Your task to perform on an android device: Search for "usb-c to usb-a" on ebay, select the first entry, add it to the cart, then select checkout. Image 0: 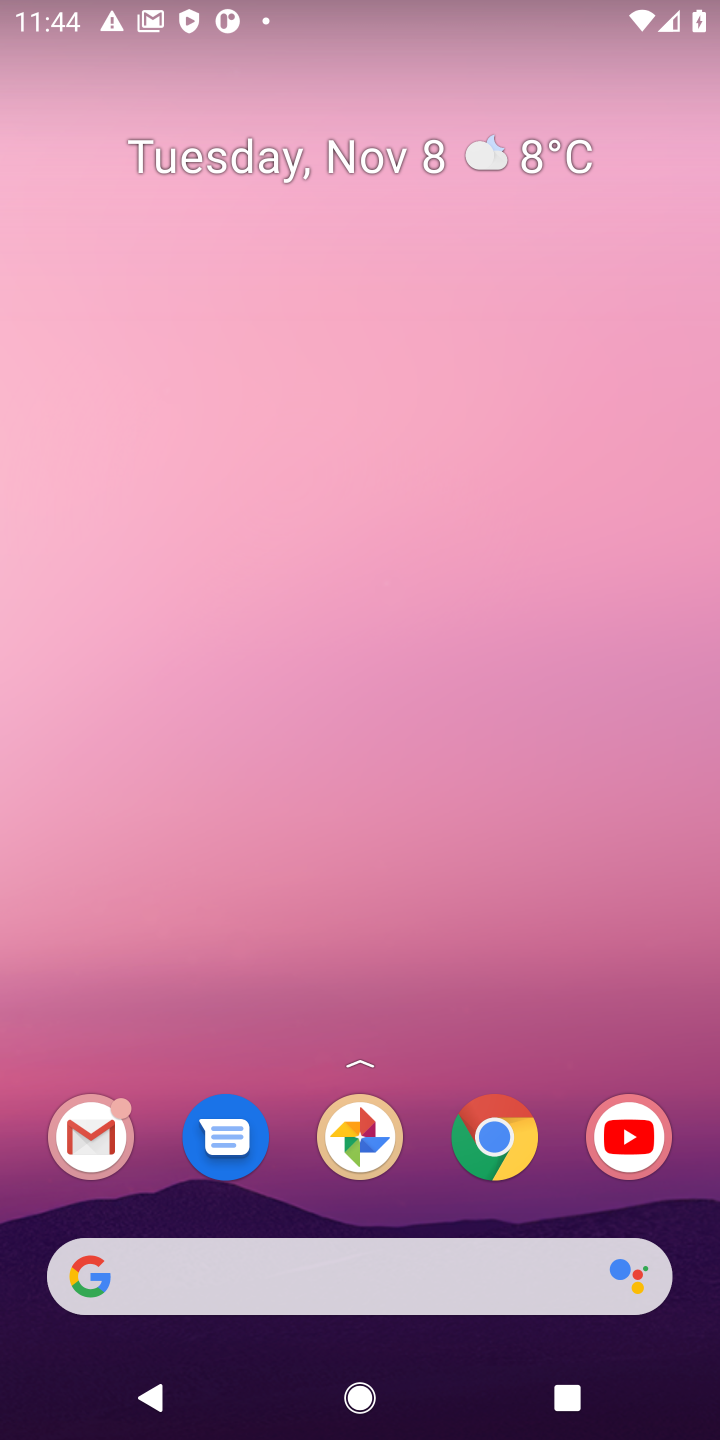
Step 0: click (498, 1136)
Your task to perform on an android device: Search for "usb-c to usb-a" on ebay, select the first entry, add it to the cart, then select checkout. Image 1: 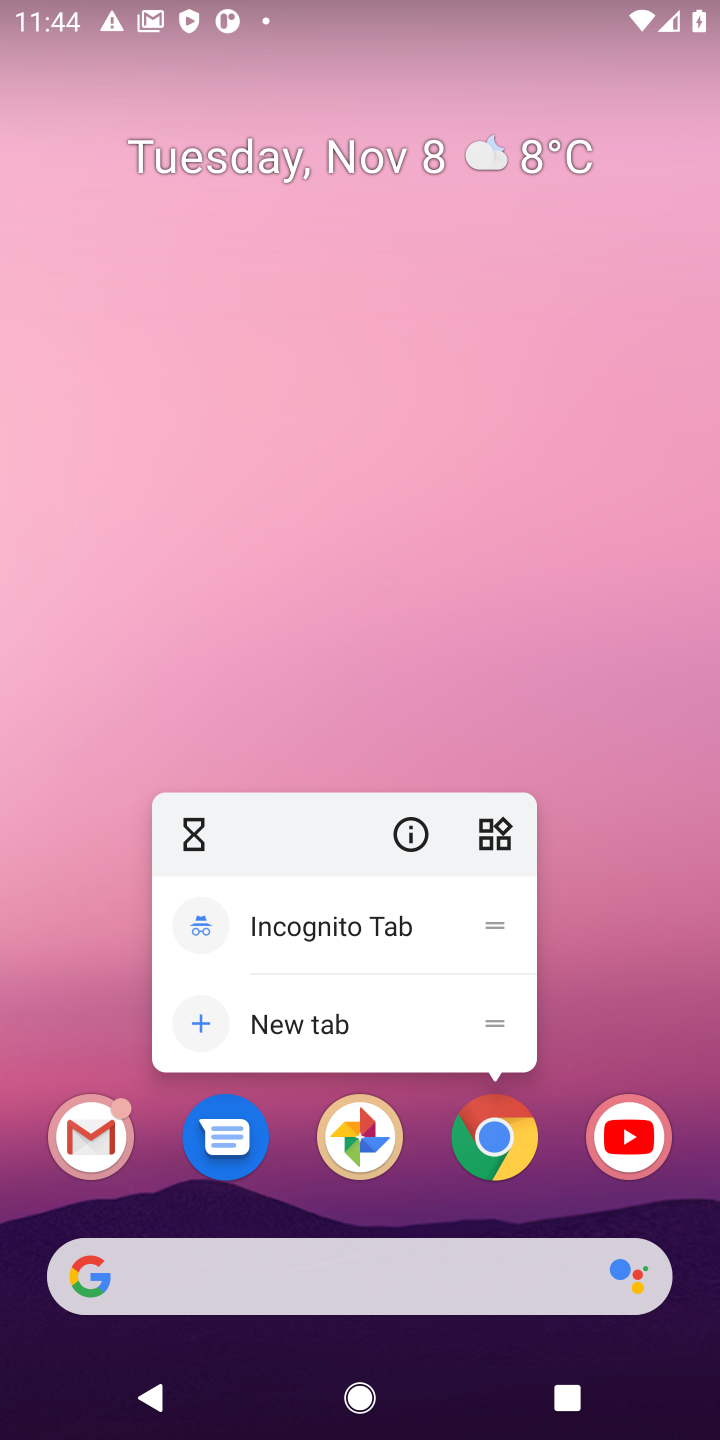
Step 1: click (487, 1146)
Your task to perform on an android device: Search for "usb-c to usb-a" on ebay, select the first entry, add it to the cart, then select checkout. Image 2: 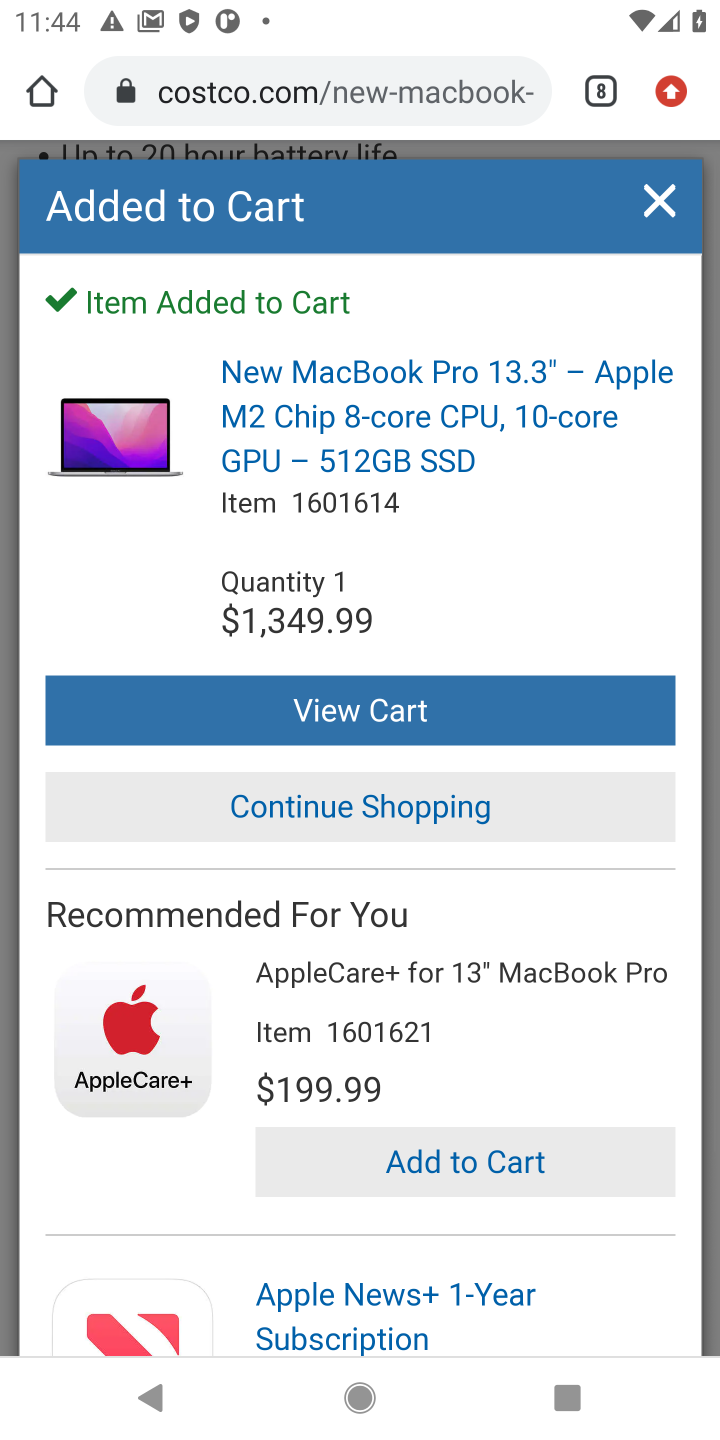
Step 2: click (599, 92)
Your task to perform on an android device: Search for "usb-c to usb-a" on ebay, select the first entry, add it to the cart, then select checkout. Image 3: 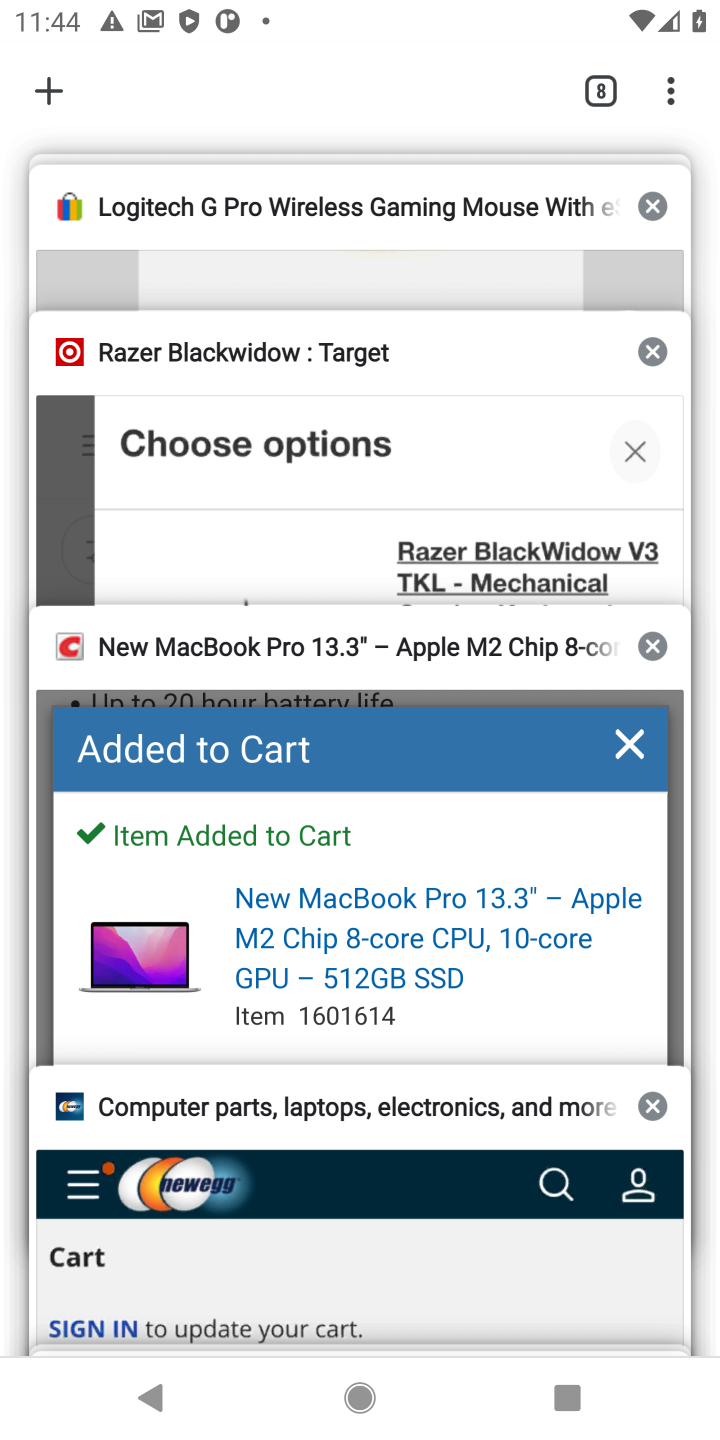
Step 3: click (475, 246)
Your task to perform on an android device: Search for "usb-c to usb-a" on ebay, select the first entry, add it to the cart, then select checkout. Image 4: 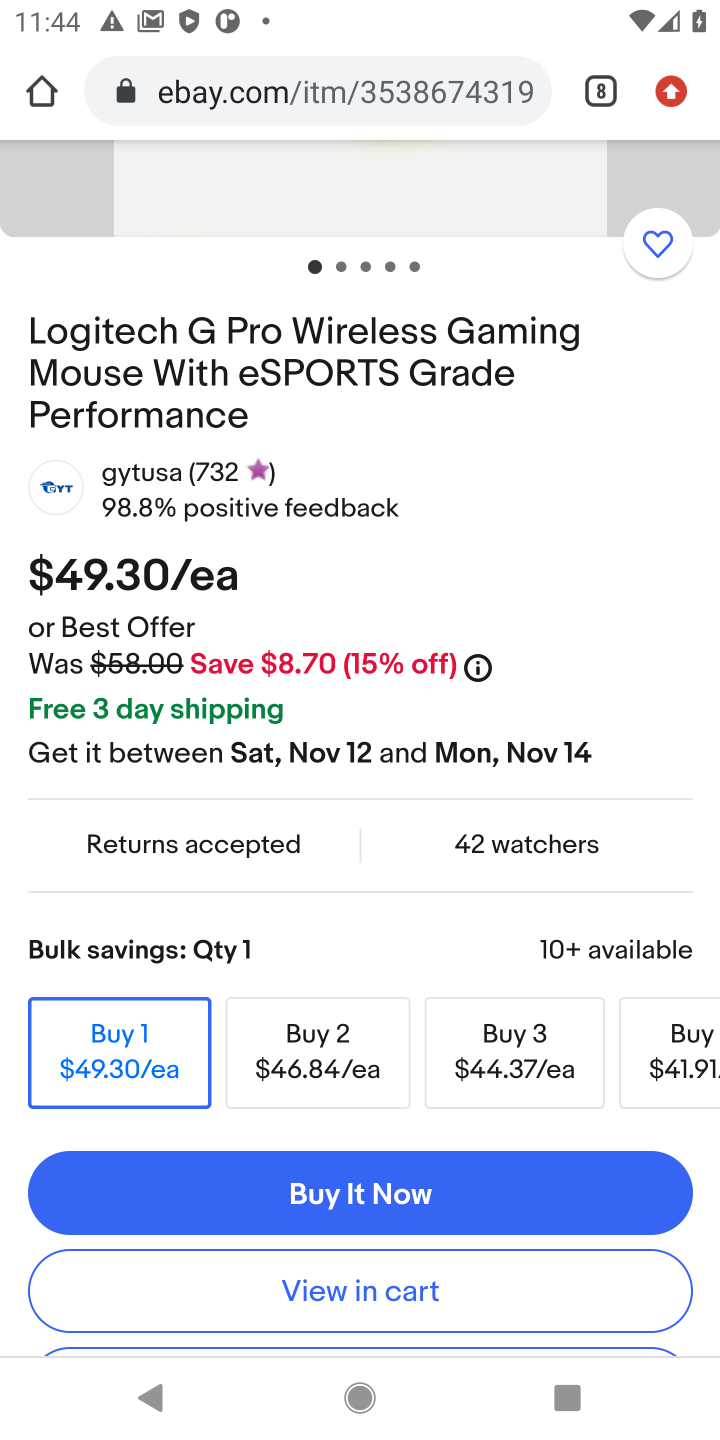
Step 4: drag from (447, 264) to (415, 1068)
Your task to perform on an android device: Search for "usb-c to usb-a" on ebay, select the first entry, add it to the cart, then select checkout. Image 5: 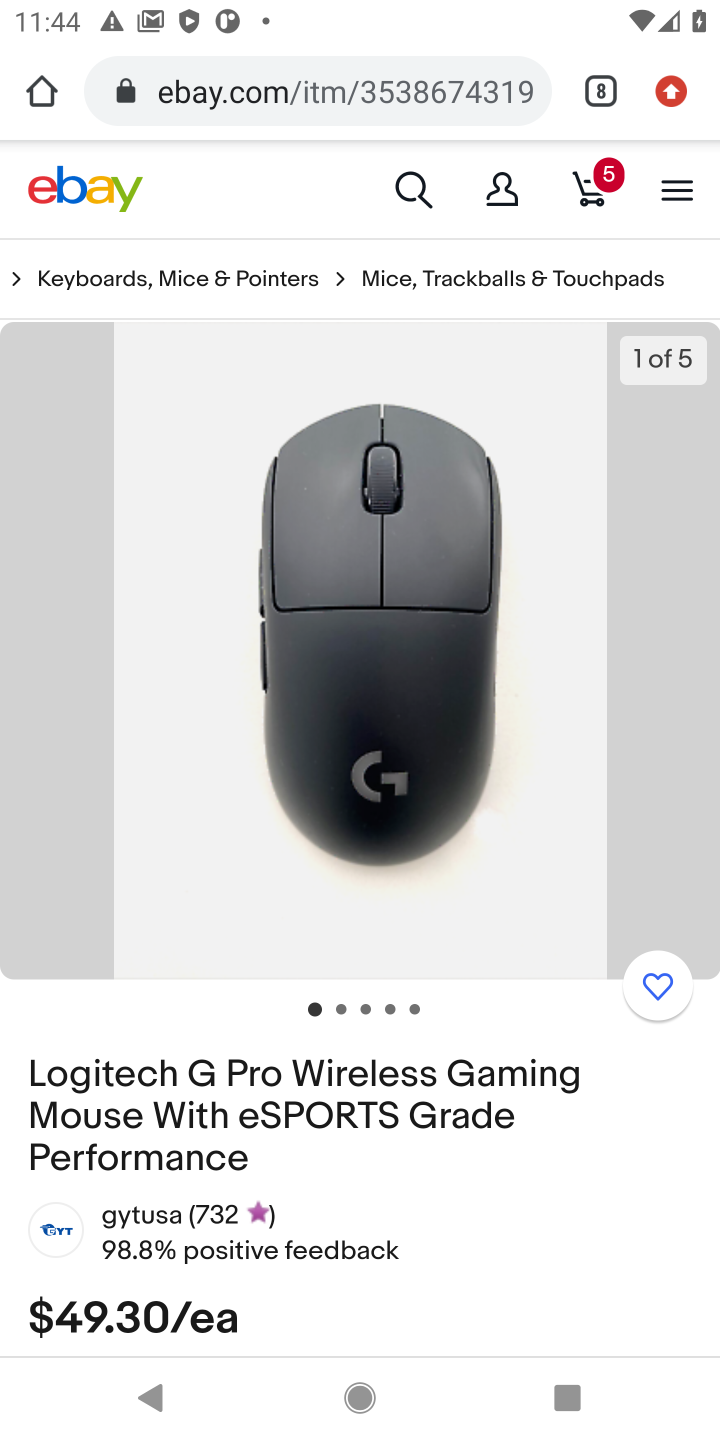
Step 5: click (409, 191)
Your task to perform on an android device: Search for "usb-c to usb-a" on ebay, select the first entry, add it to the cart, then select checkout. Image 6: 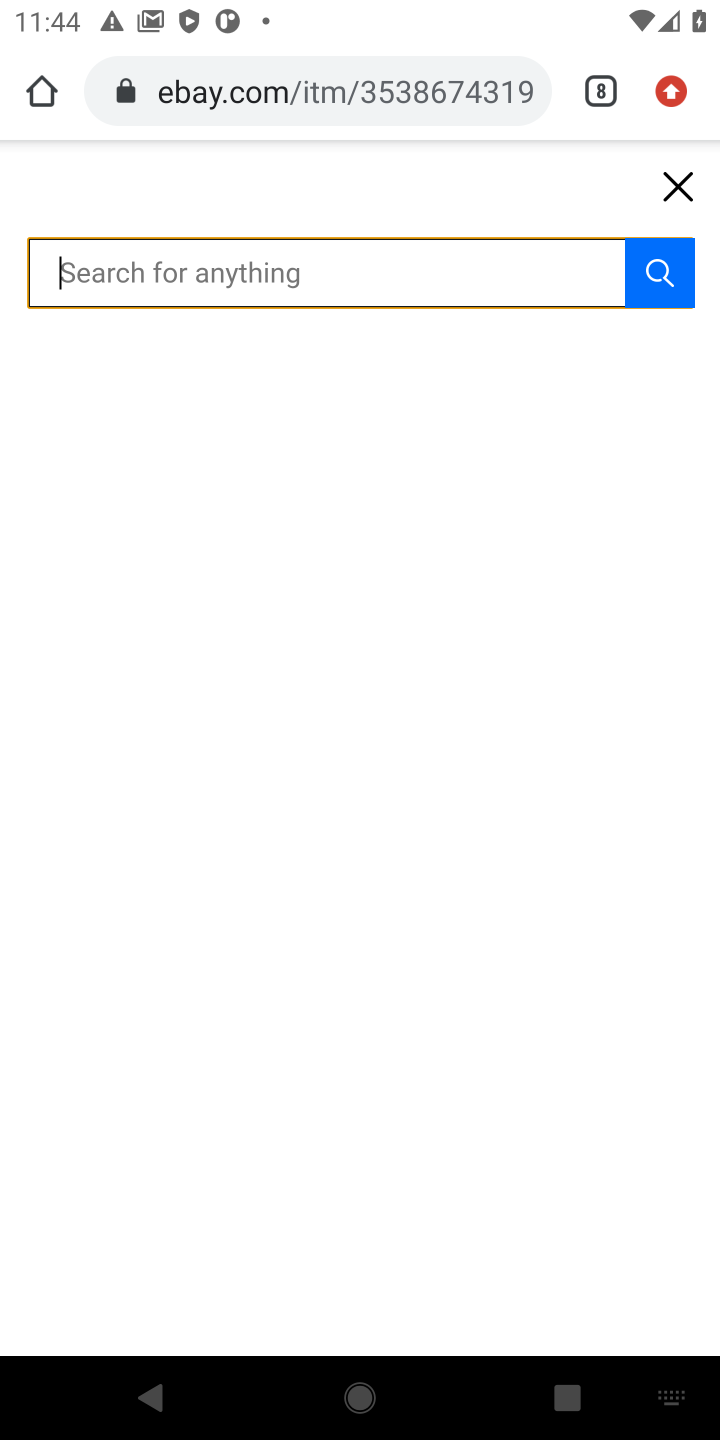
Step 6: type "usb-c to usb-a"
Your task to perform on an android device: Search for "usb-c to usb-a" on ebay, select the first entry, add it to the cart, then select checkout. Image 7: 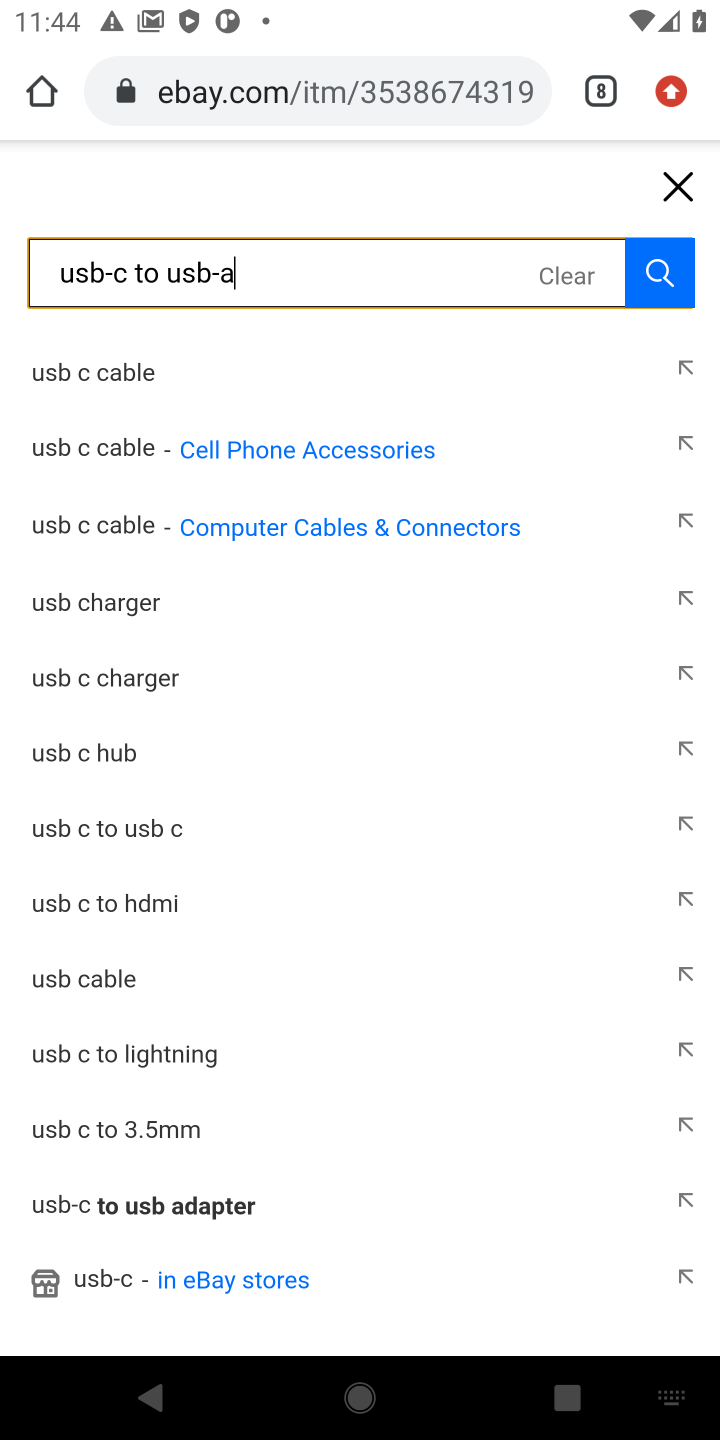
Step 7: click (648, 279)
Your task to perform on an android device: Search for "usb-c to usb-a" on ebay, select the first entry, add it to the cart, then select checkout. Image 8: 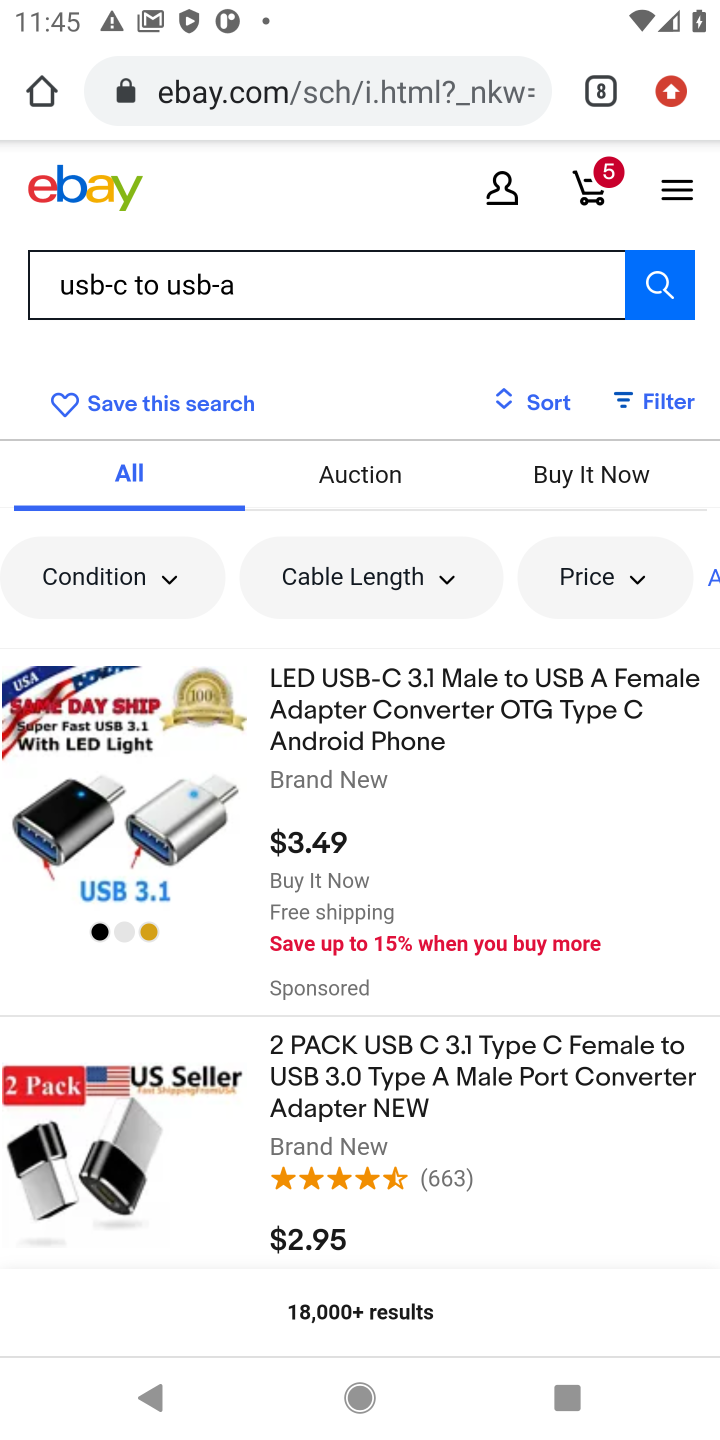
Step 8: click (494, 705)
Your task to perform on an android device: Search for "usb-c to usb-a" on ebay, select the first entry, add it to the cart, then select checkout. Image 9: 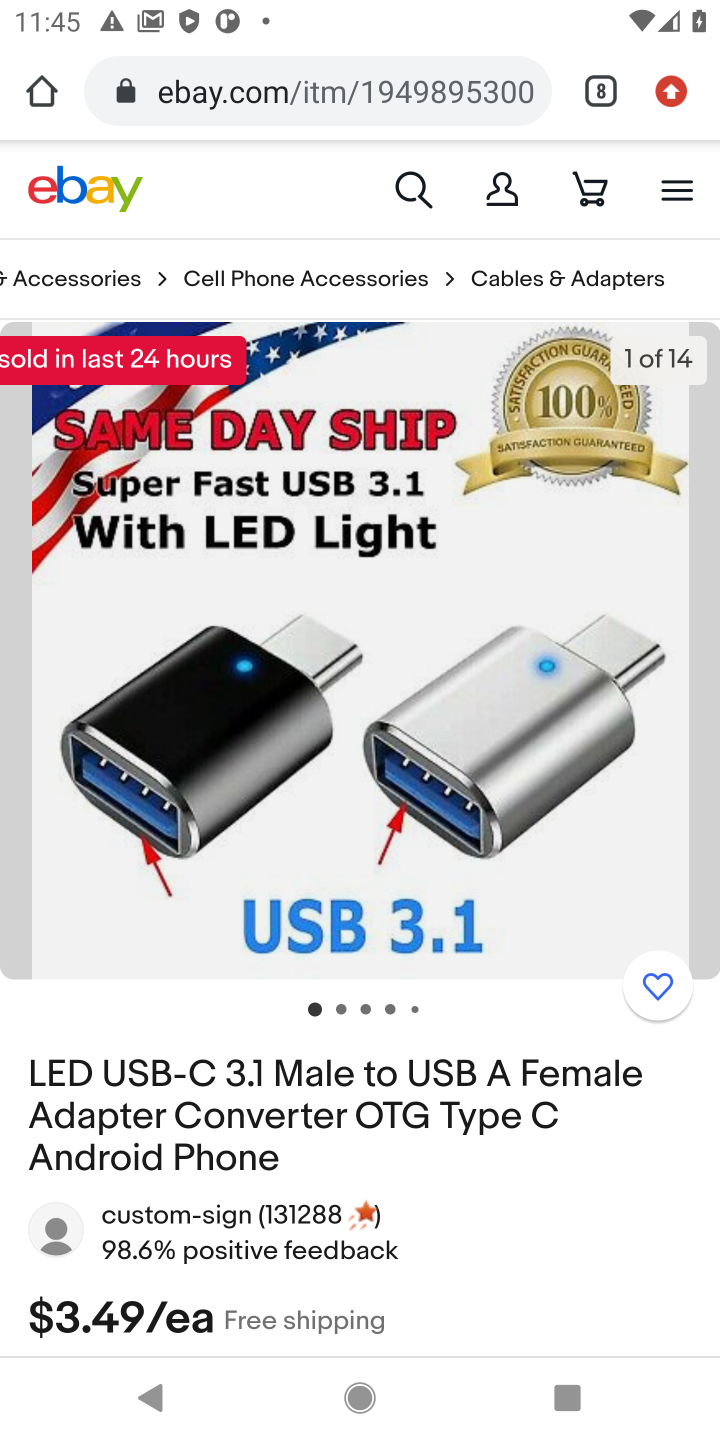
Step 9: drag from (518, 894) to (618, 570)
Your task to perform on an android device: Search for "usb-c to usb-a" on ebay, select the first entry, add it to the cart, then select checkout. Image 10: 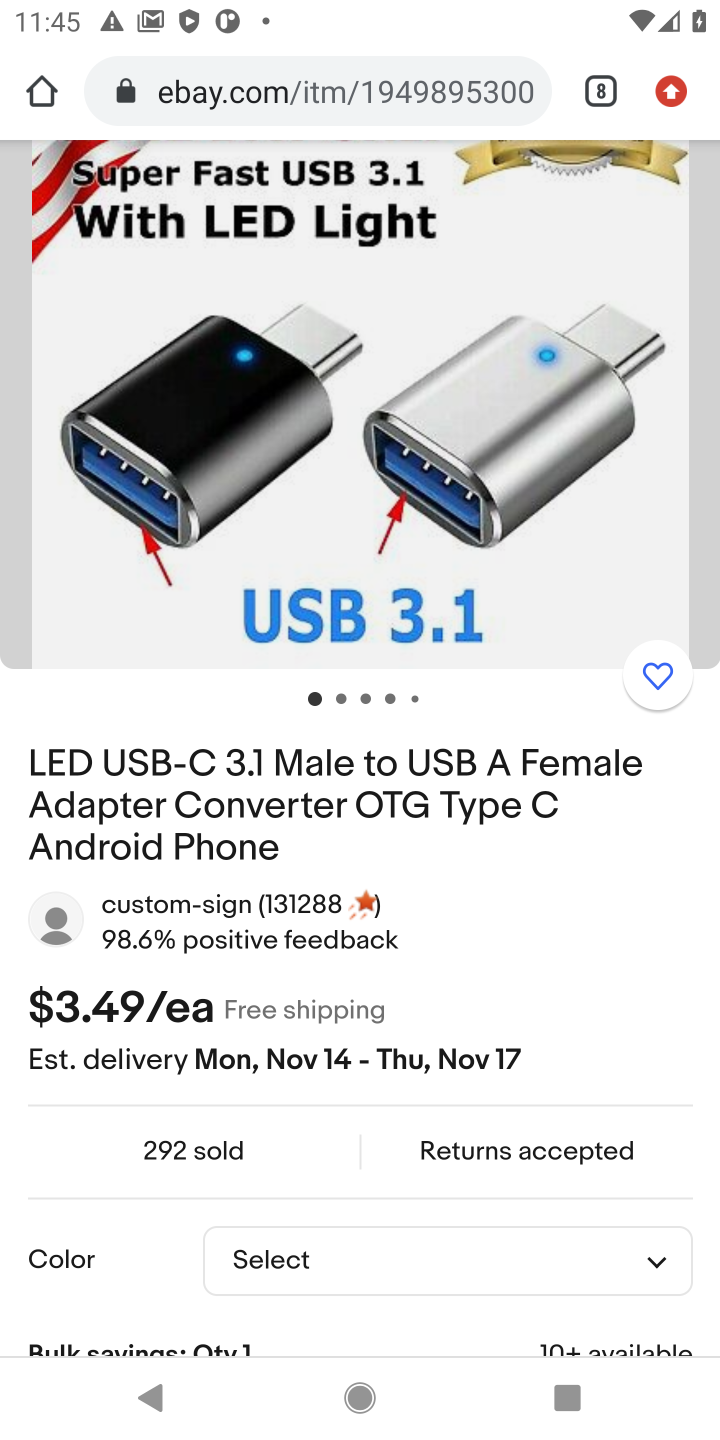
Step 10: drag from (558, 1161) to (644, 534)
Your task to perform on an android device: Search for "usb-c to usb-a" on ebay, select the first entry, add it to the cart, then select checkout. Image 11: 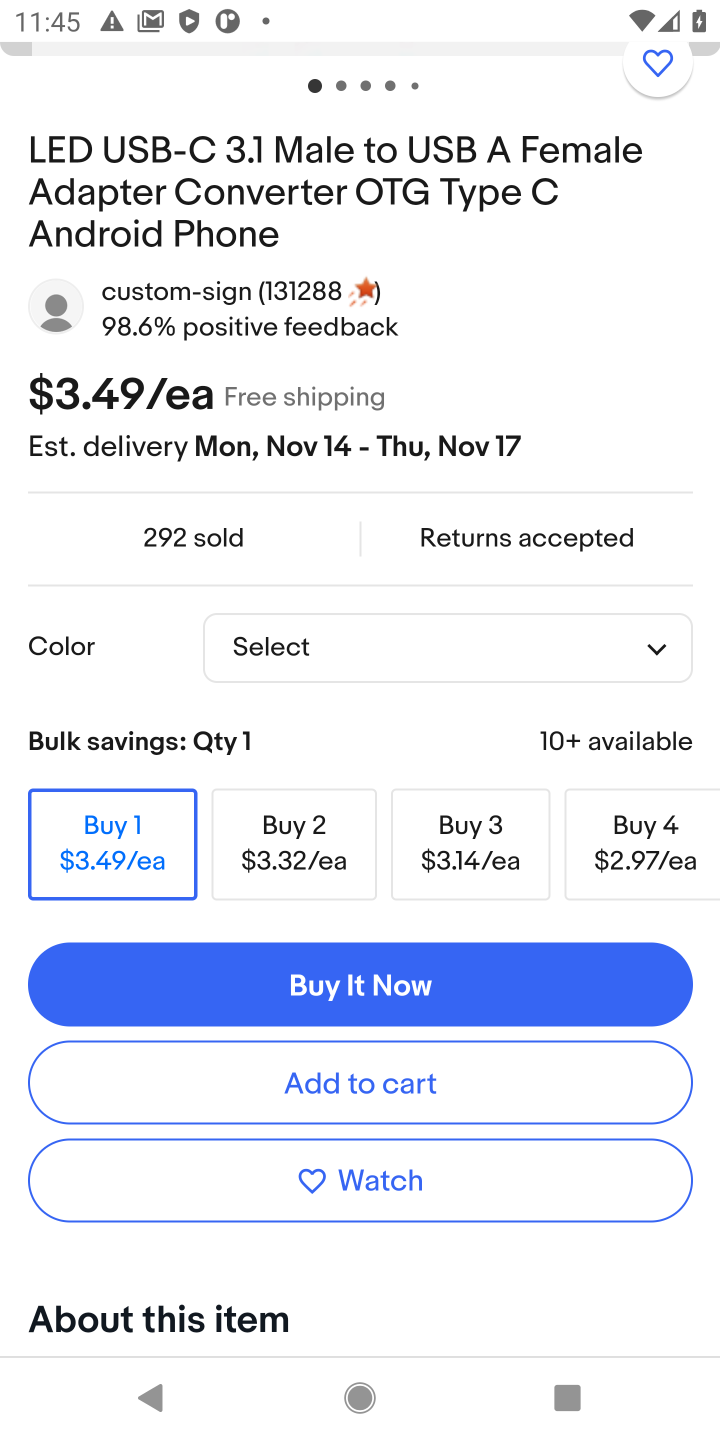
Step 11: click (650, 646)
Your task to perform on an android device: Search for "usb-c to usb-a" on ebay, select the first entry, add it to the cart, then select checkout. Image 12: 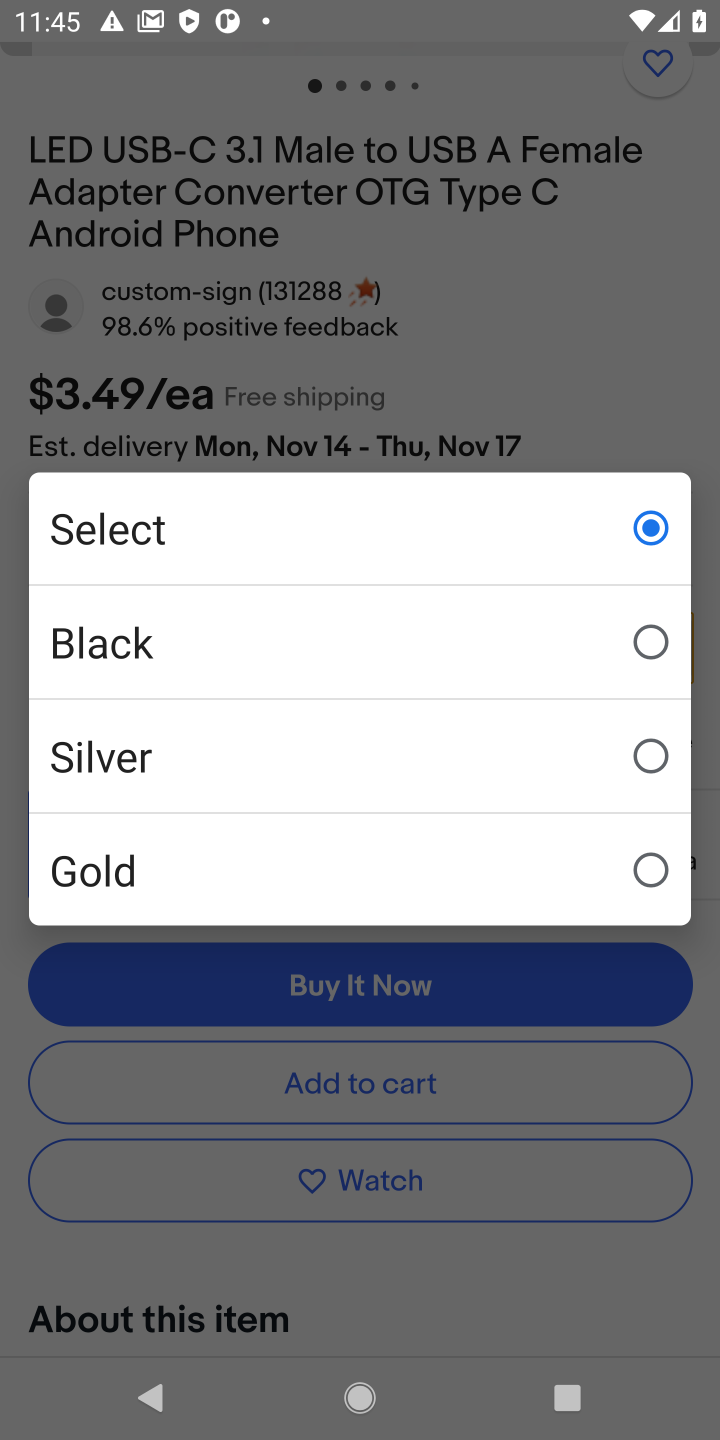
Step 12: click (651, 656)
Your task to perform on an android device: Search for "usb-c to usb-a" on ebay, select the first entry, add it to the cart, then select checkout. Image 13: 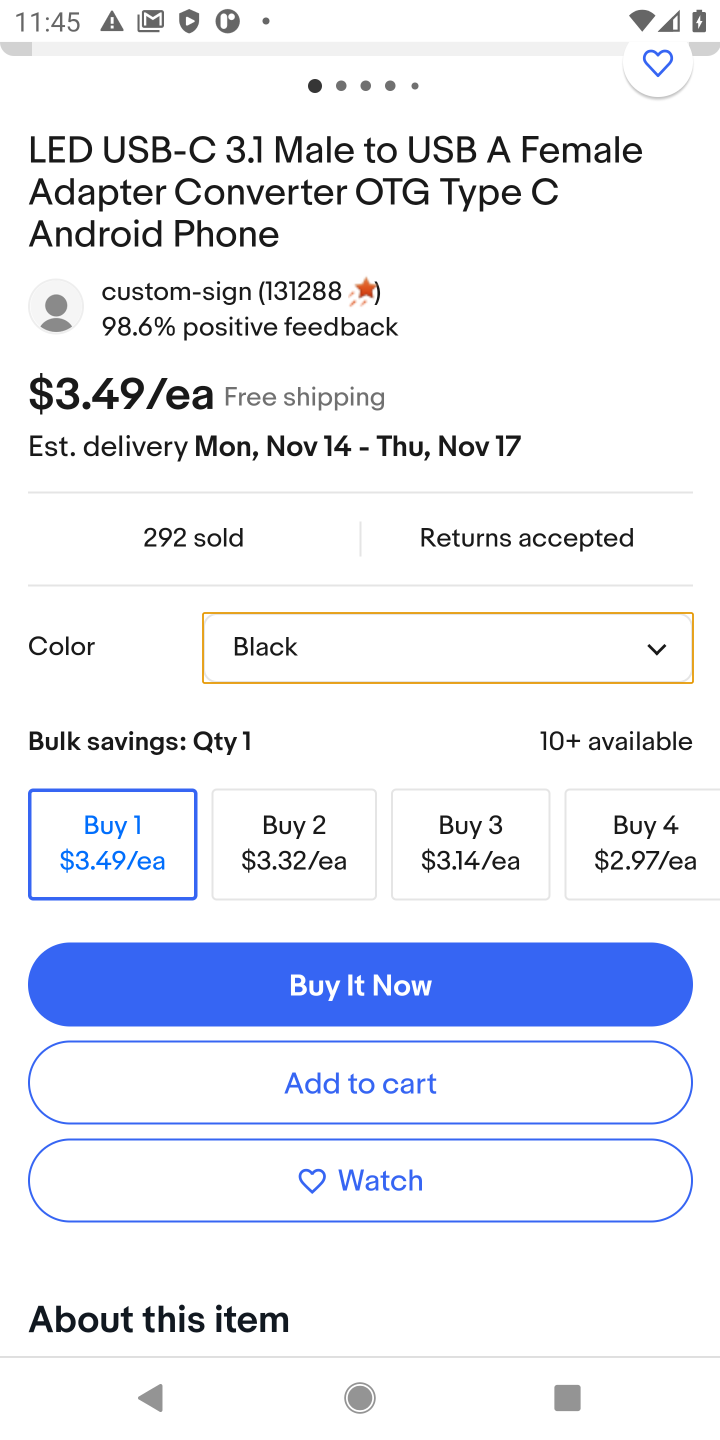
Step 13: click (412, 1092)
Your task to perform on an android device: Search for "usb-c to usb-a" on ebay, select the first entry, add it to the cart, then select checkout. Image 14: 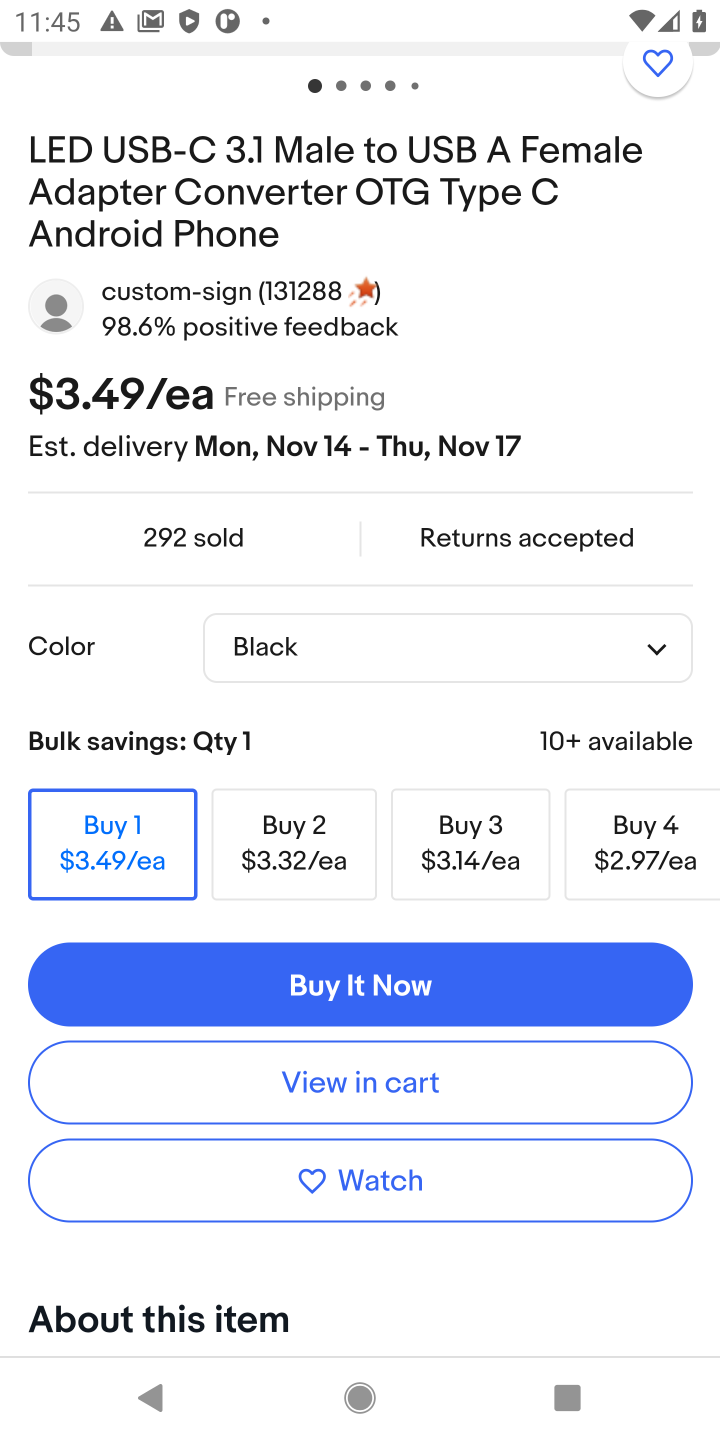
Step 14: click (412, 1092)
Your task to perform on an android device: Search for "usb-c to usb-a" on ebay, select the first entry, add it to the cart, then select checkout. Image 15: 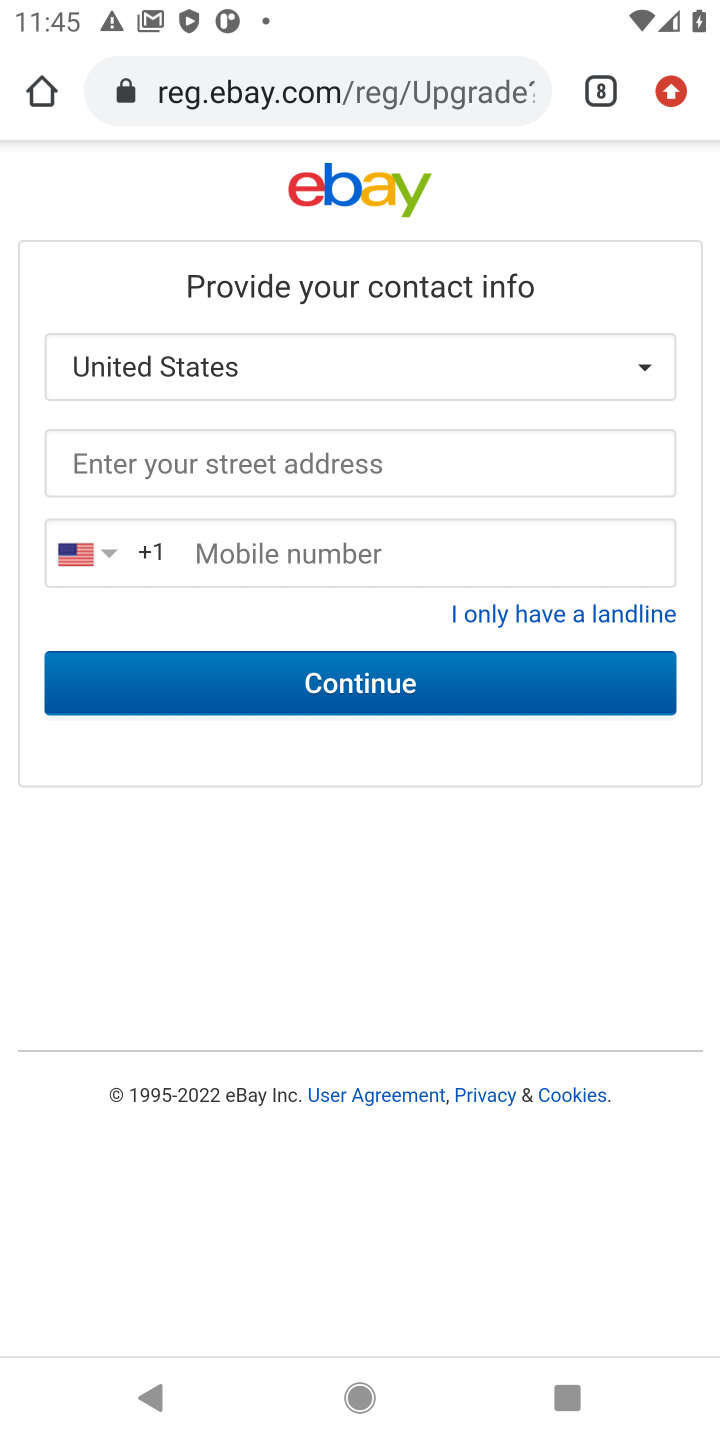
Step 15: task complete